Your task to perform on an android device: allow notifications from all sites in the chrome app Image 0: 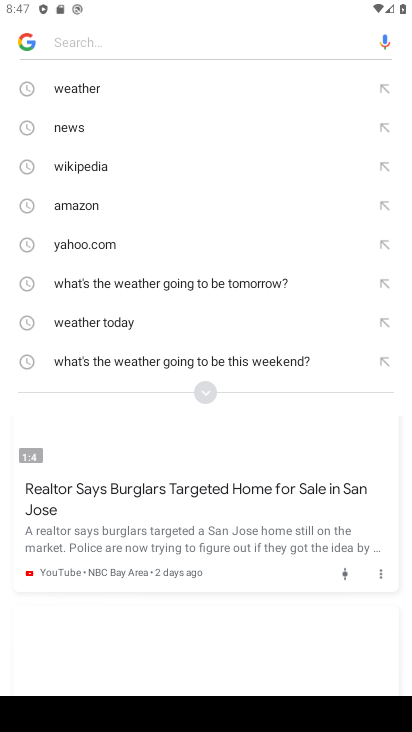
Step 0: press home button
Your task to perform on an android device: allow notifications from all sites in the chrome app Image 1: 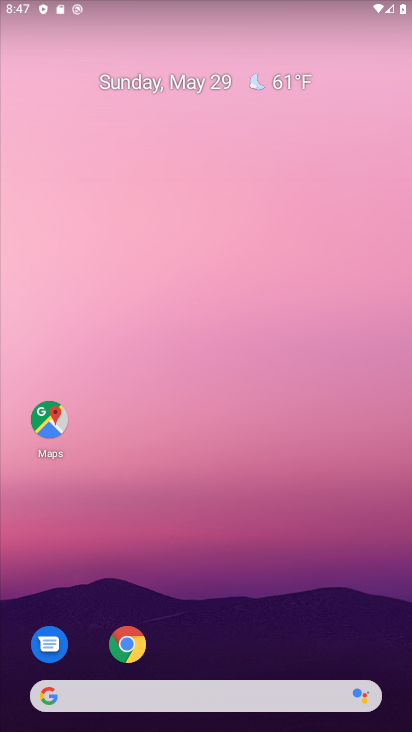
Step 1: click (131, 642)
Your task to perform on an android device: allow notifications from all sites in the chrome app Image 2: 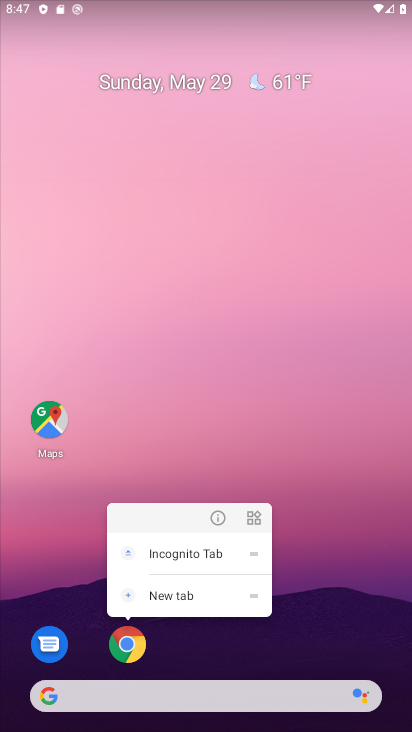
Step 2: click (131, 642)
Your task to perform on an android device: allow notifications from all sites in the chrome app Image 3: 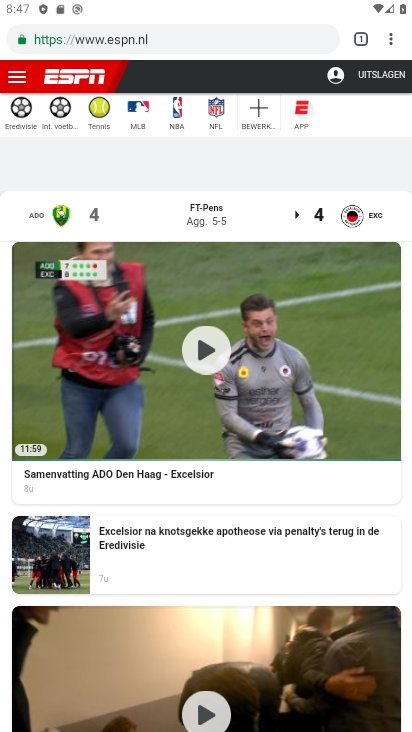
Step 3: drag from (392, 39) to (294, 433)
Your task to perform on an android device: allow notifications from all sites in the chrome app Image 4: 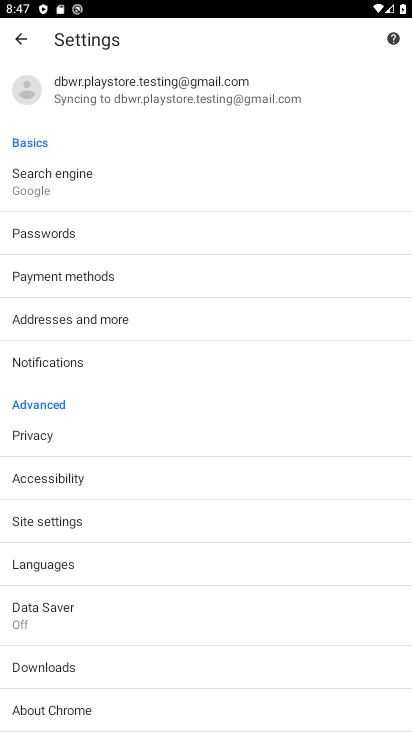
Step 4: click (127, 522)
Your task to perform on an android device: allow notifications from all sites in the chrome app Image 5: 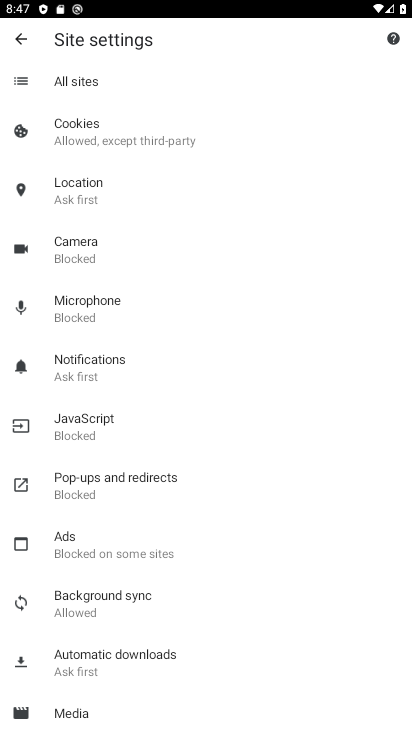
Step 5: click (118, 365)
Your task to perform on an android device: allow notifications from all sites in the chrome app Image 6: 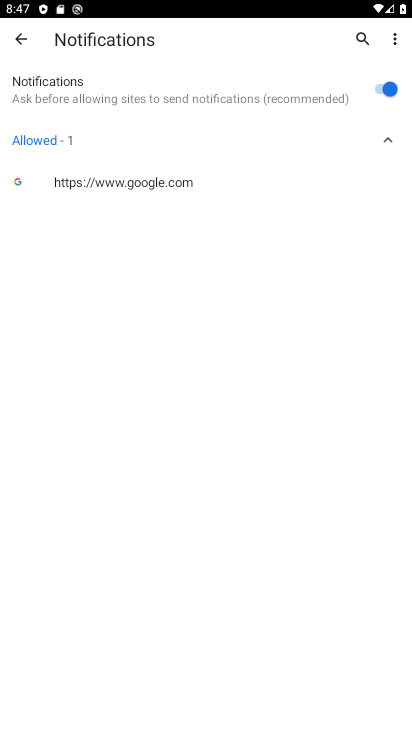
Step 6: task complete